Your task to perform on an android device: turn on airplane mode Image 0: 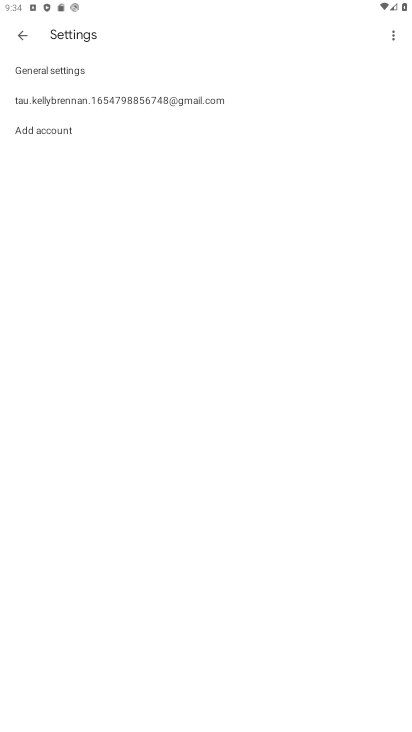
Step 0: press home button
Your task to perform on an android device: turn on airplane mode Image 1: 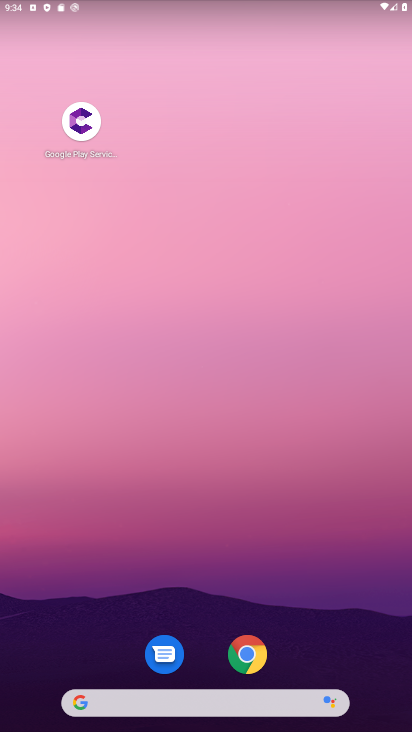
Step 1: drag from (202, 650) to (193, 79)
Your task to perform on an android device: turn on airplane mode Image 2: 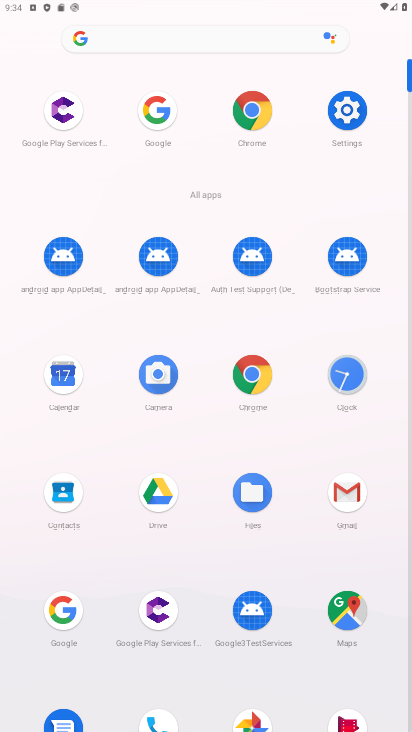
Step 2: click (345, 111)
Your task to perform on an android device: turn on airplane mode Image 3: 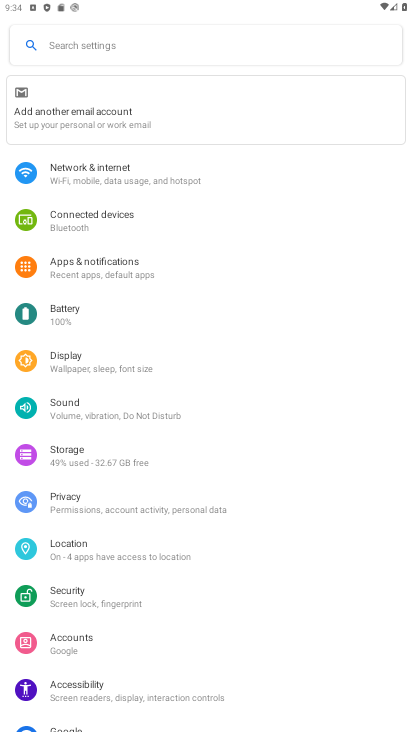
Step 3: click (152, 172)
Your task to perform on an android device: turn on airplane mode Image 4: 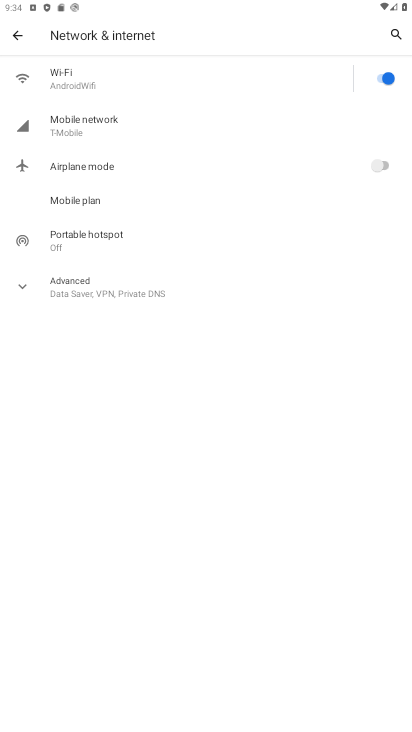
Step 4: click (388, 158)
Your task to perform on an android device: turn on airplane mode Image 5: 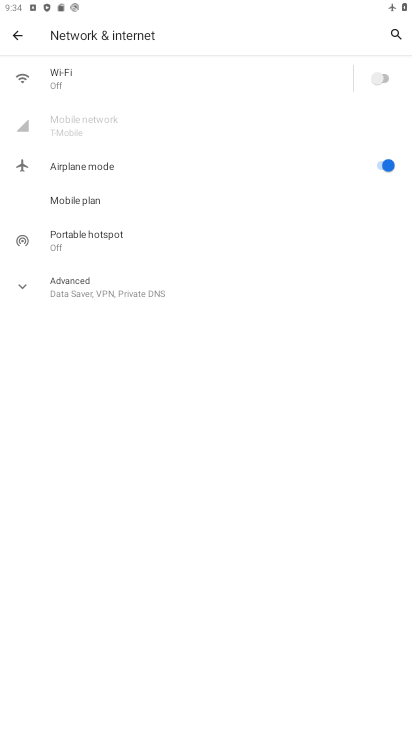
Step 5: task complete